Your task to perform on an android device: Look up the best rated coffee maker on Lowe's. Image 0: 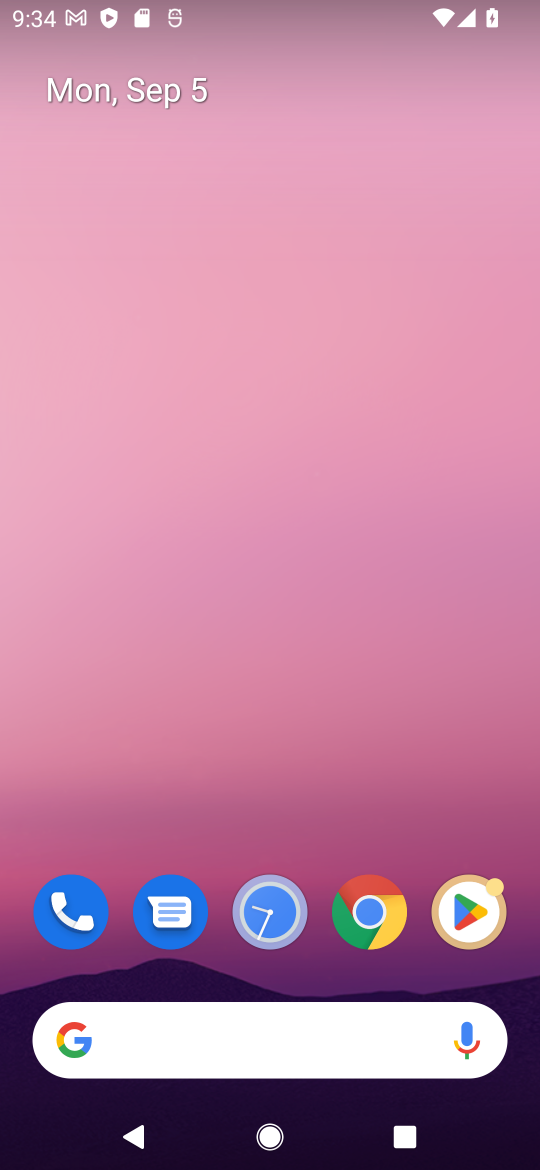
Step 0: click (361, 919)
Your task to perform on an android device: Look up the best rated coffee maker on Lowe's. Image 1: 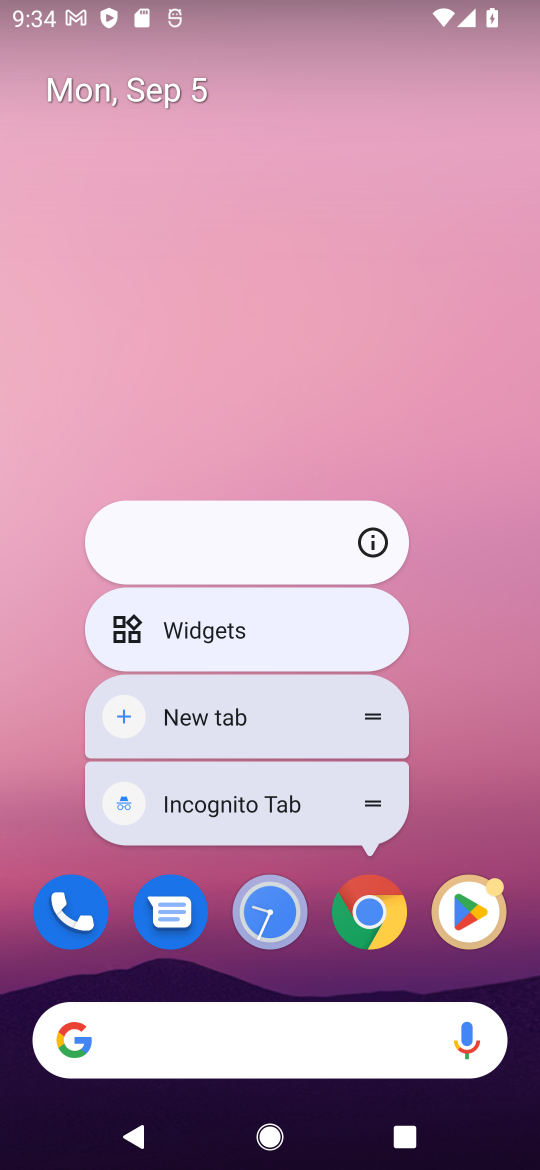
Step 1: click (372, 924)
Your task to perform on an android device: Look up the best rated coffee maker on Lowe's. Image 2: 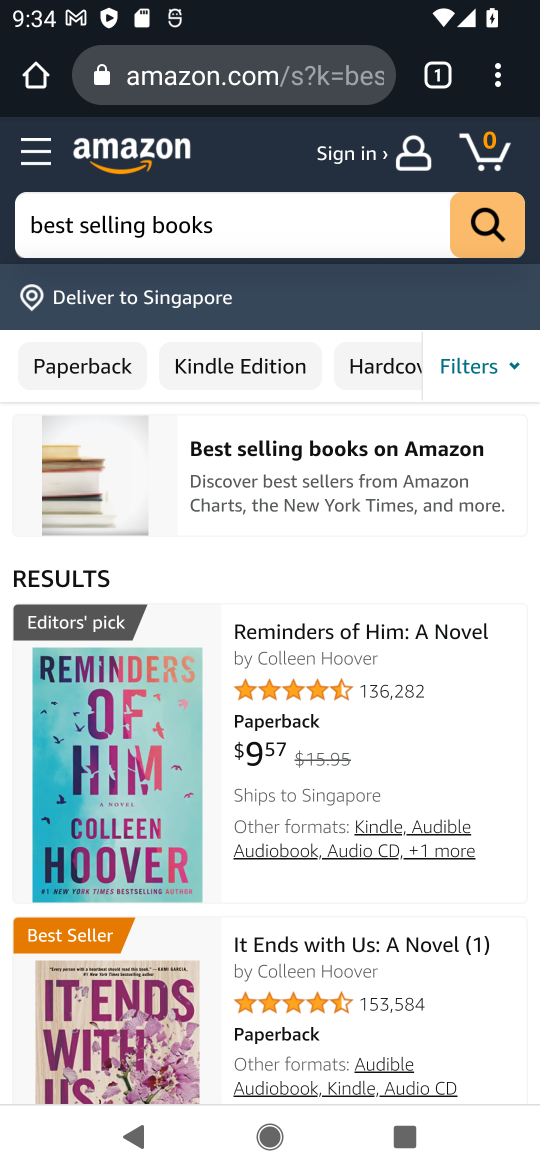
Step 2: click (244, 76)
Your task to perform on an android device: Look up the best rated coffee maker on Lowe's. Image 3: 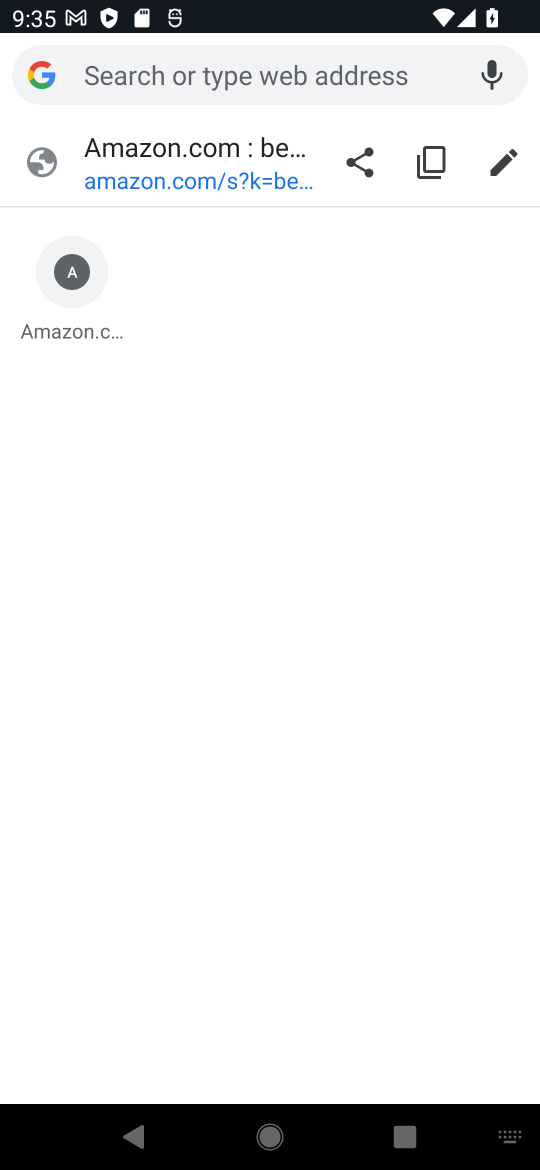
Step 3: click (179, 81)
Your task to perform on an android device: Look up the best rated coffee maker on Lowe's. Image 4: 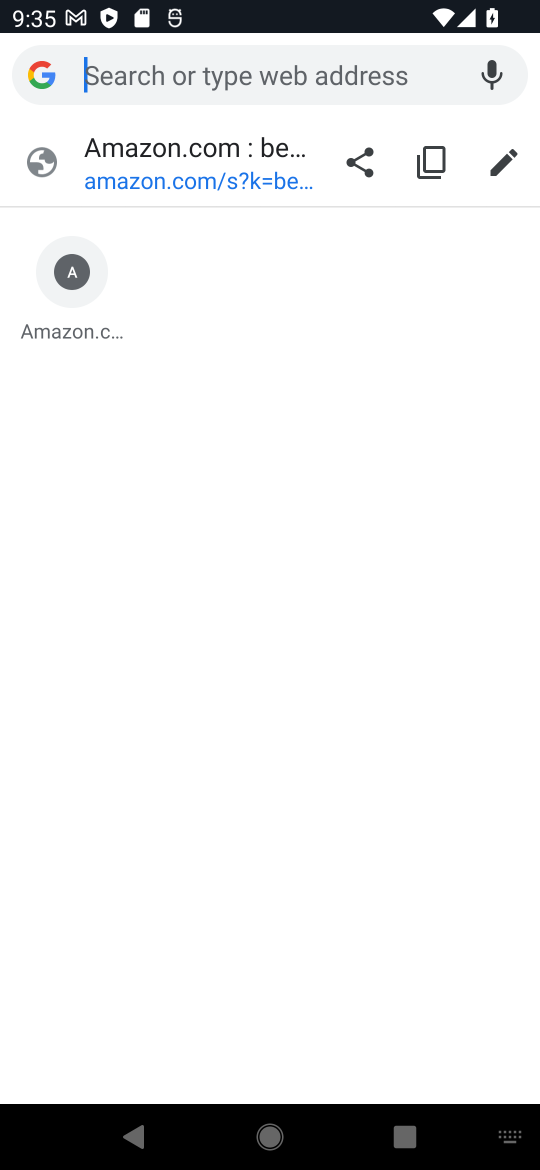
Step 4: type "Lowe's."
Your task to perform on an android device: Look up the best rated coffee maker on Lowe's. Image 5: 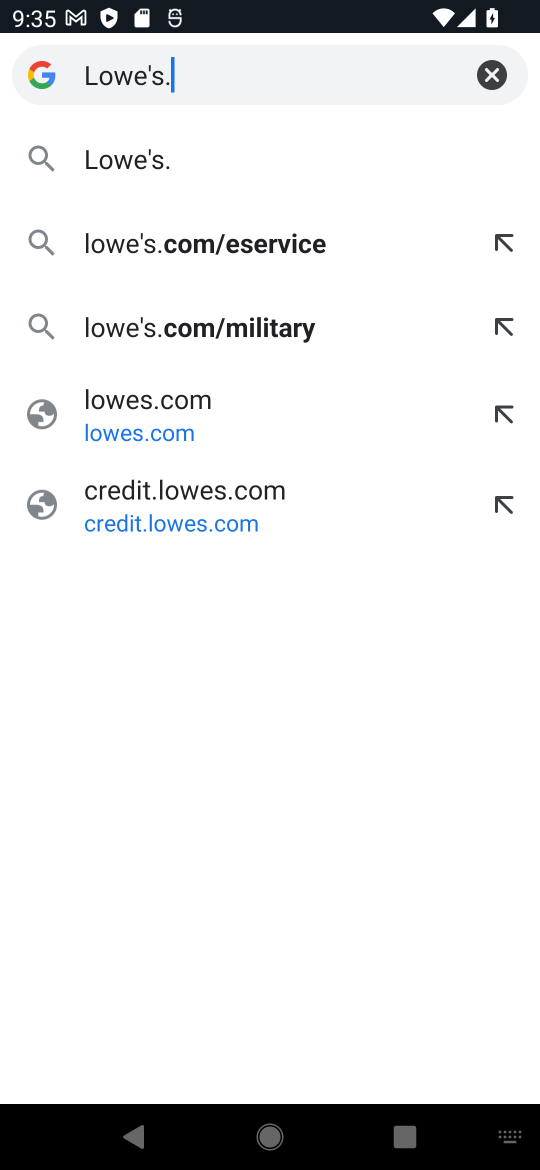
Step 5: click (111, 158)
Your task to perform on an android device: Look up the best rated coffee maker on Lowe's. Image 6: 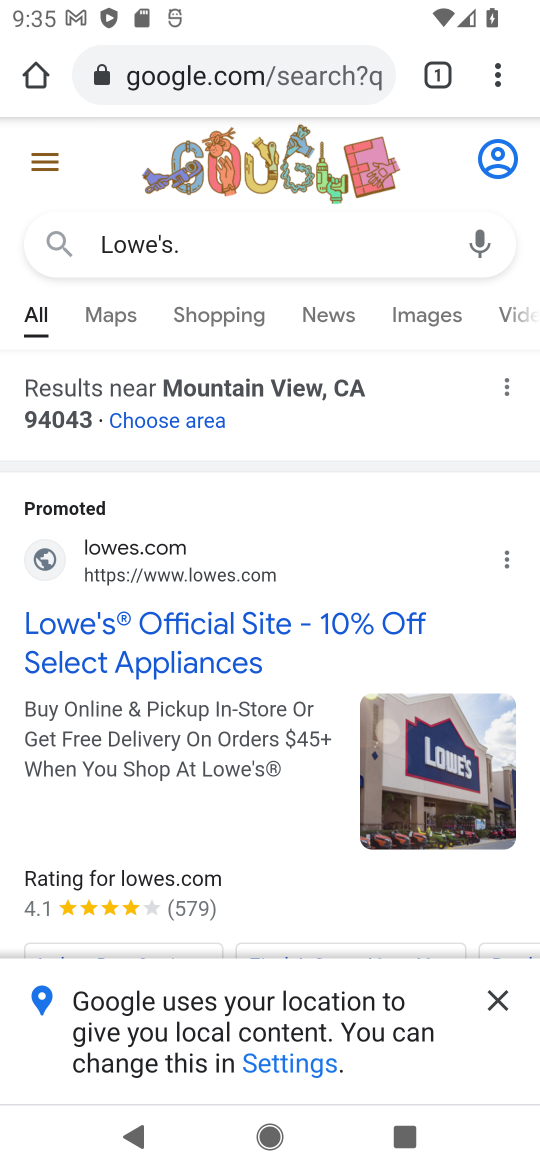
Step 6: drag from (134, 794) to (189, 461)
Your task to perform on an android device: Look up the best rated coffee maker on Lowe's. Image 7: 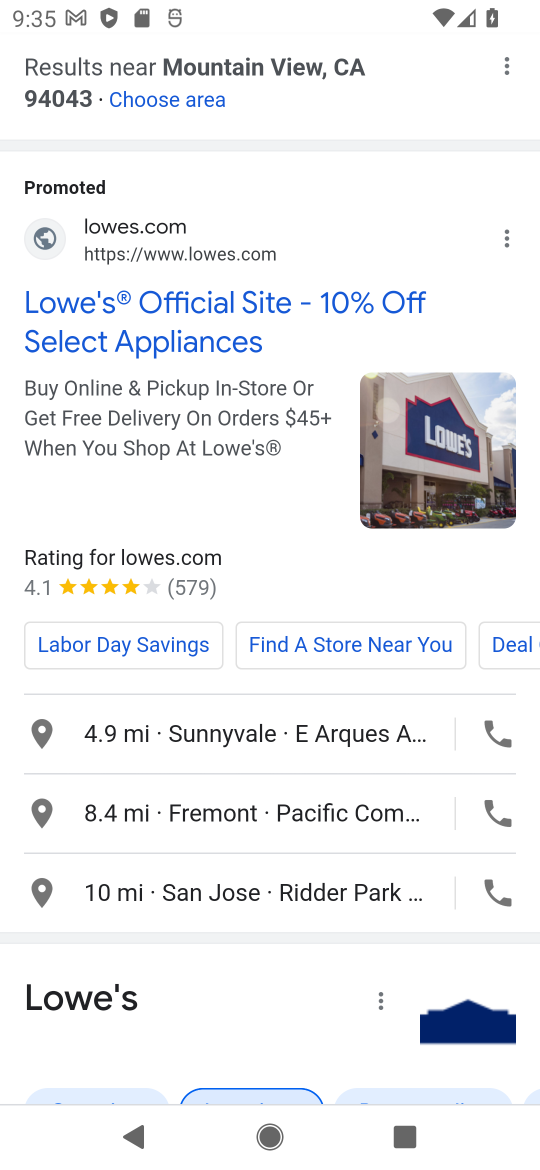
Step 7: click (61, 1010)
Your task to perform on an android device: Look up the best rated coffee maker on Lowe's. Image 8: 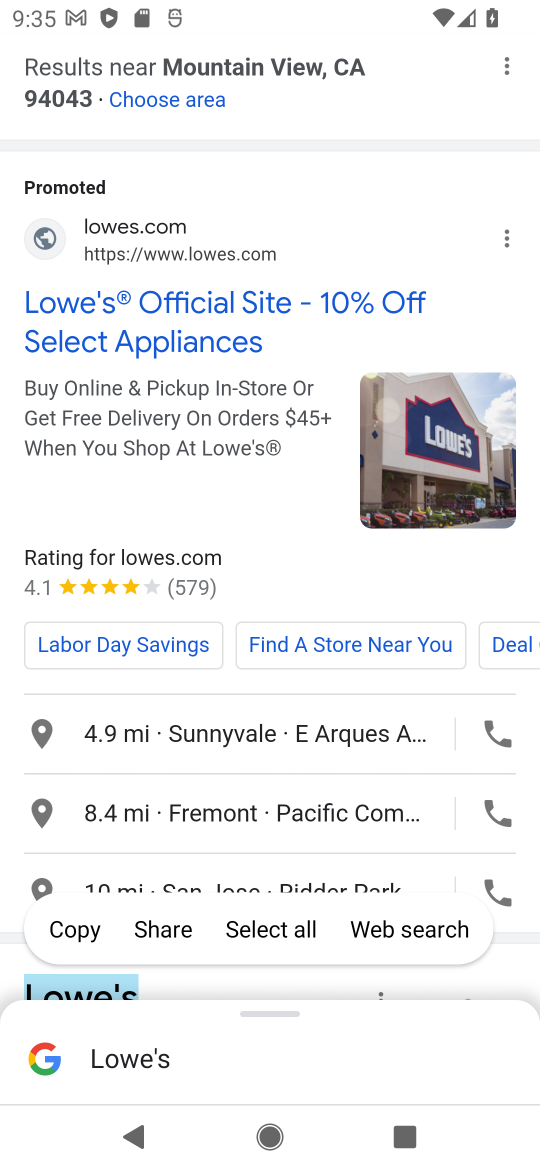
Step 8: click (114, 989)
Your task to perform on an android device: Look up the best rated coffee maker on Lowe's. Image 9: 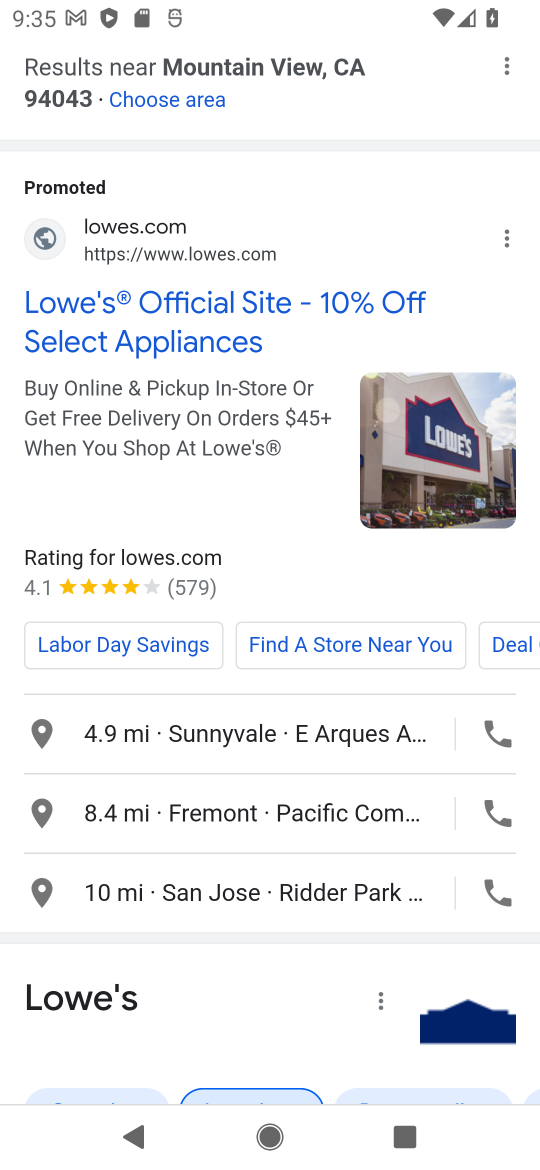
Step 9: click (97, 1001)
Your task to perform on an android device: Look up the best rated coffee maker on Lowe's. Image 10: 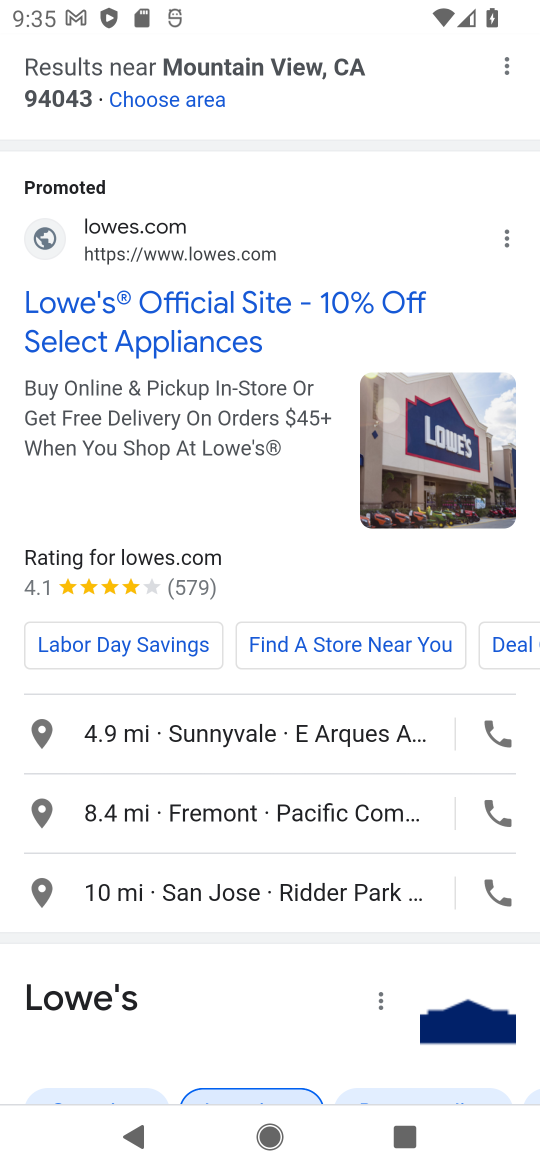
Step 10: click (89, 1004)
Your task to perform on an android device: Look up the best rated coffee maker on Lowe's. Image 11: 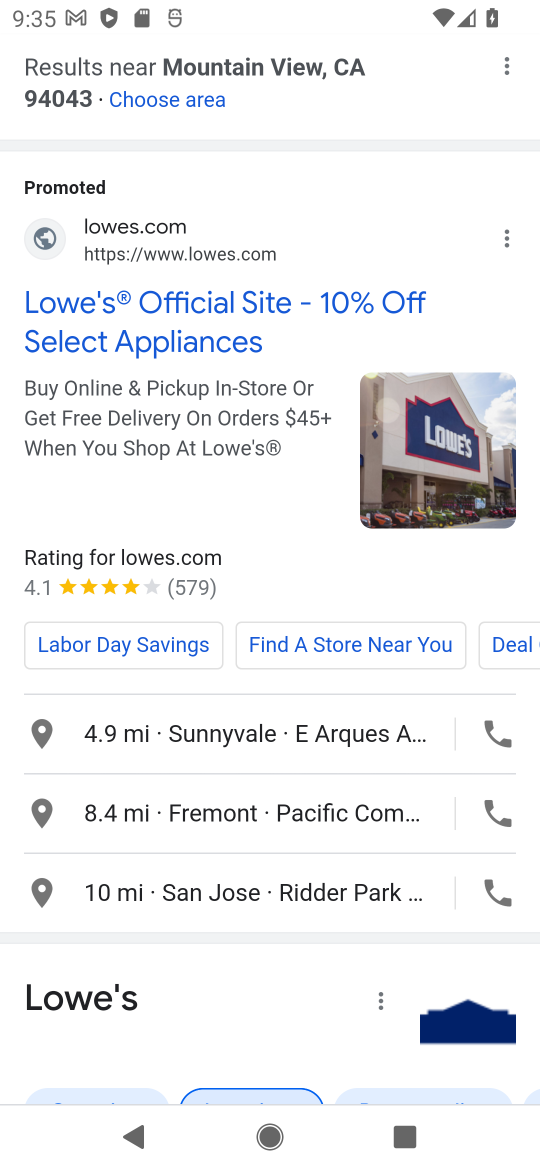
Step 11: click (89, 1004)
Your task to perform on an android device: Look up the best rated coffee maker on Lowe's. Image 12: 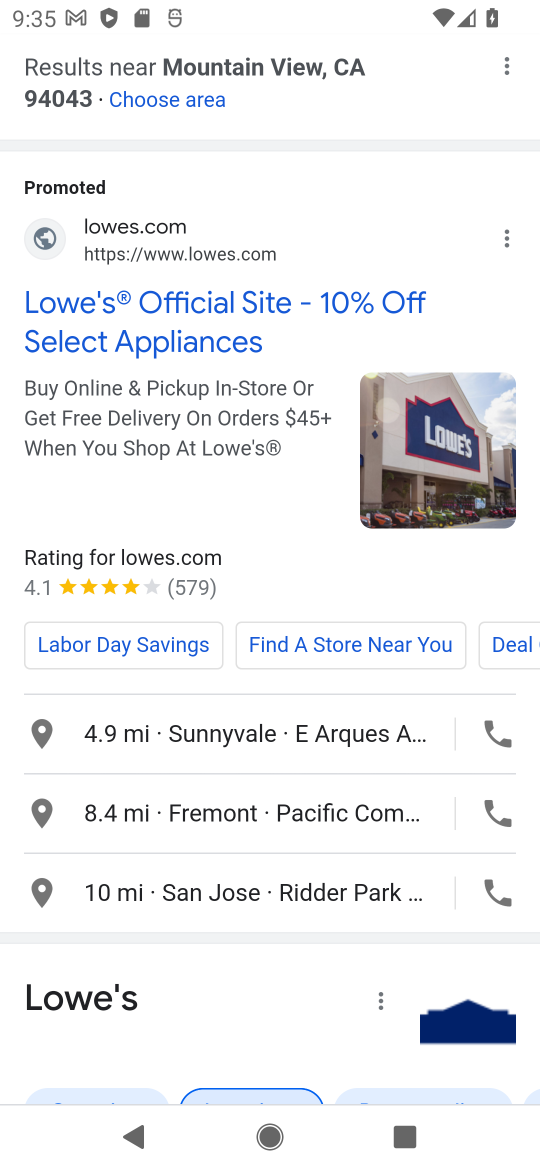
Step 12: click (89, 1004)
Your task to perform on an android device: Look up the best rated coffee maker on Lowe's. Image 13: 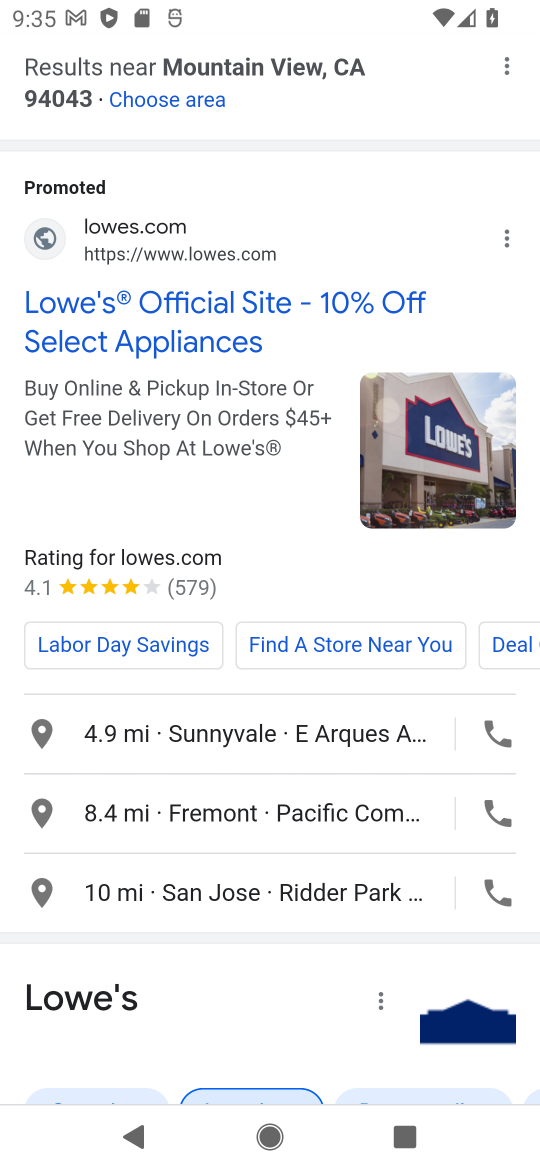
Step 13: drag from (305, 773) to (344, 409)
Your task to perform on an android device: Look up the best rated coffee maker on Lowe's. Image 14: 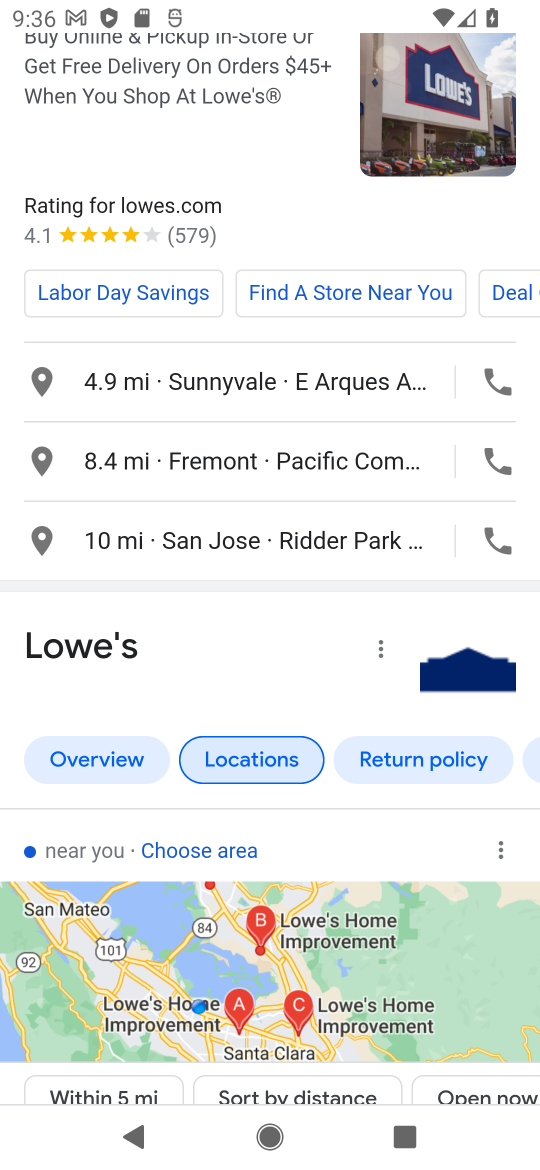
Step 14: click (82, 648)
Your task to perform on an android device: Look up the best rated coffee maker on Lowe's. Image 15: 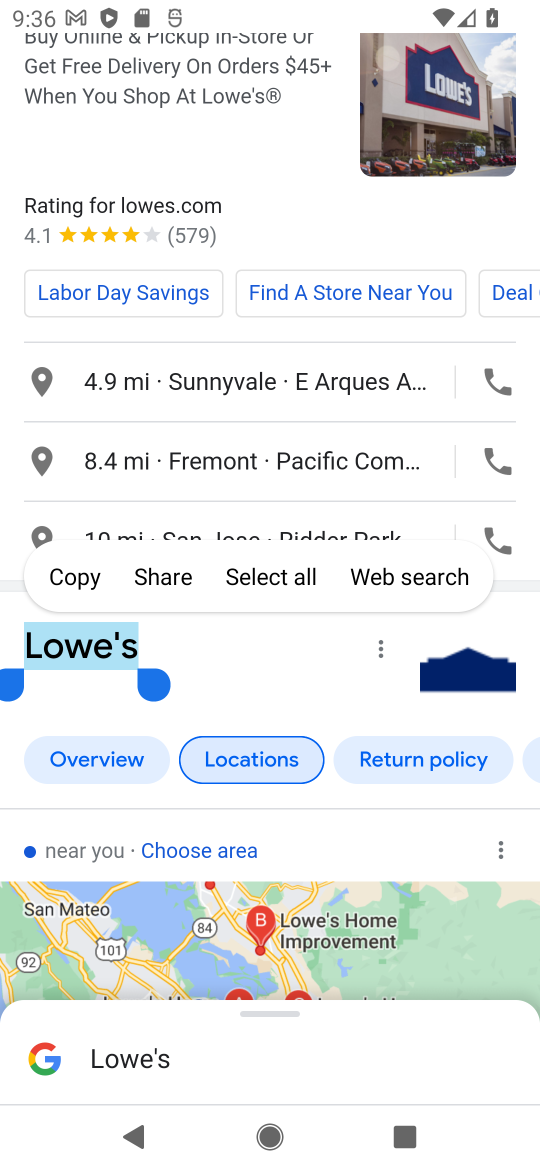
Step 15: drag from (240, 424) to (234, 241)
Your task to perform on an android device: Look up the best rated coffee maker on Lowe's. Image 16: 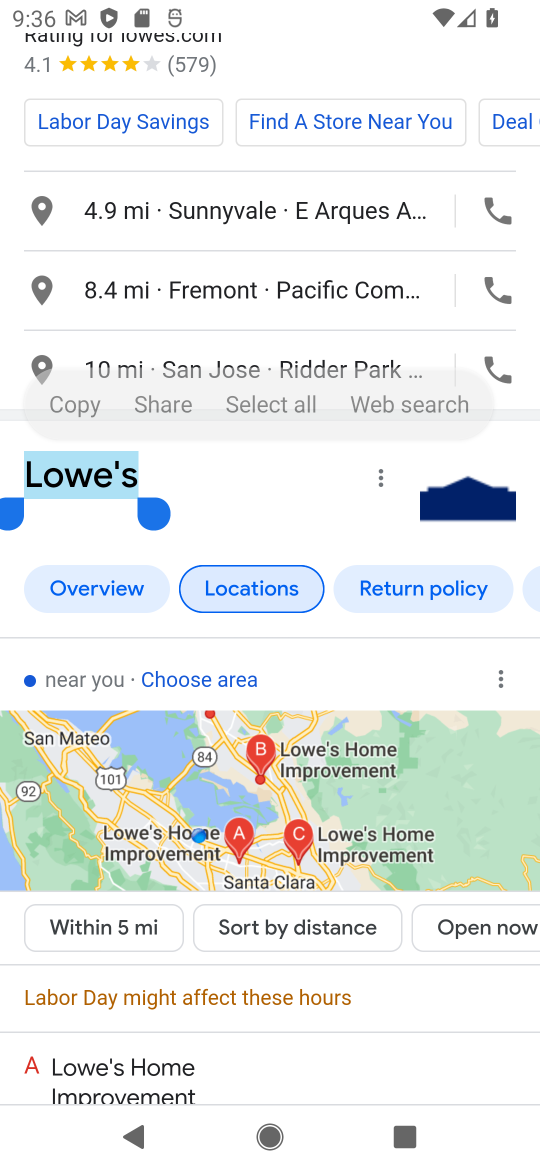
Step 16: drag from (362, 395) to (311, 149)
Your task to perform on an android device: Look up the best rated coffee maker on Lowe's. Image 17: 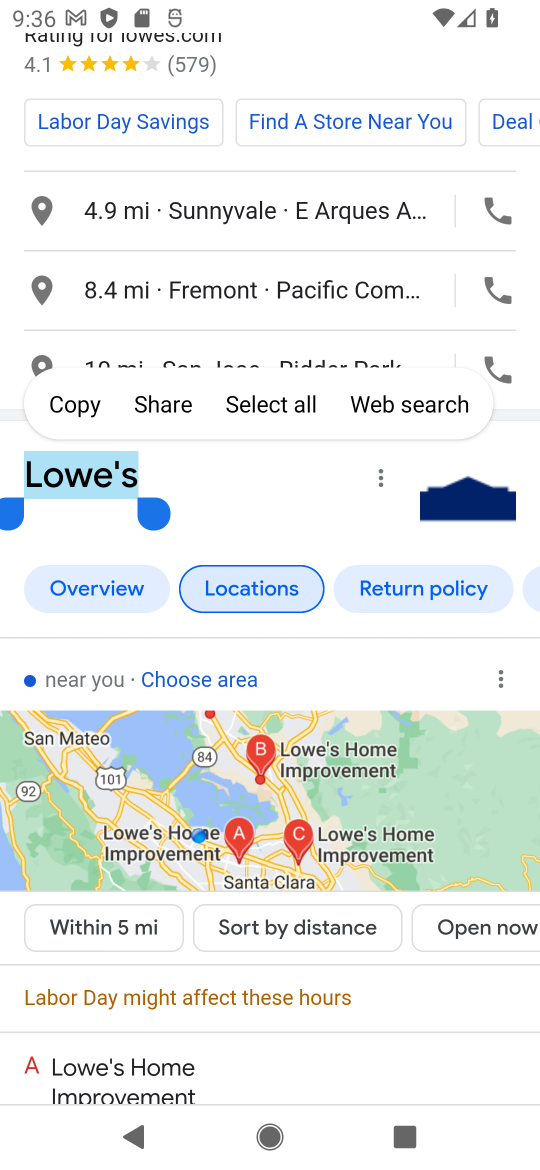
Step 17: drag from (271, 771) to (290, 952)
Your task to perform on an android device: Look up the best rated coffee maker on Lowe's. Image 18: 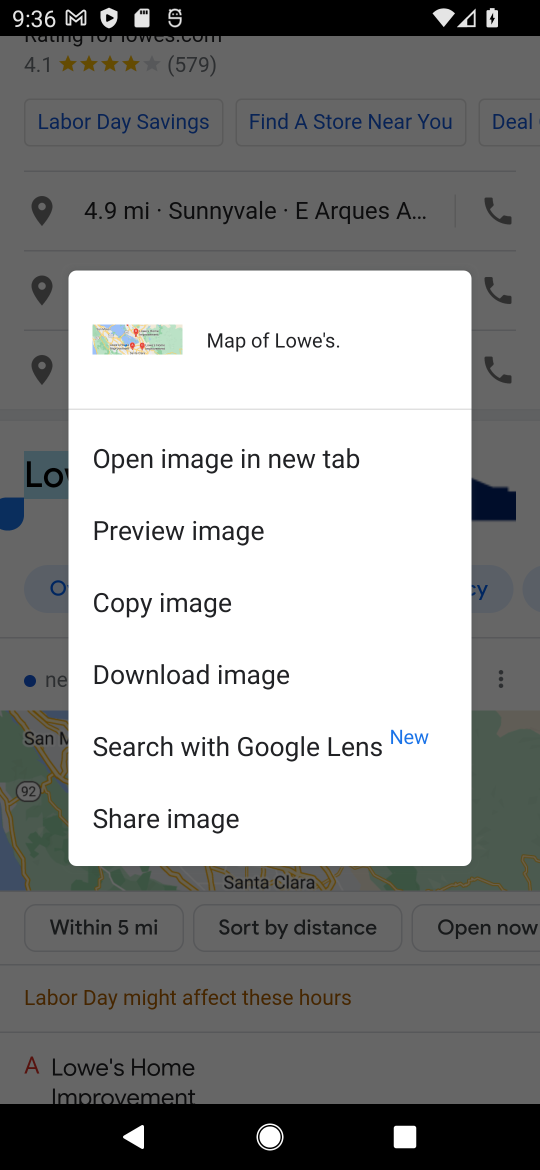
Step 18: drag from (460, 609) to (459, 943)
Your task to perform on an android device: Look up the best rated coffee maker on Lowe's. Image 19: 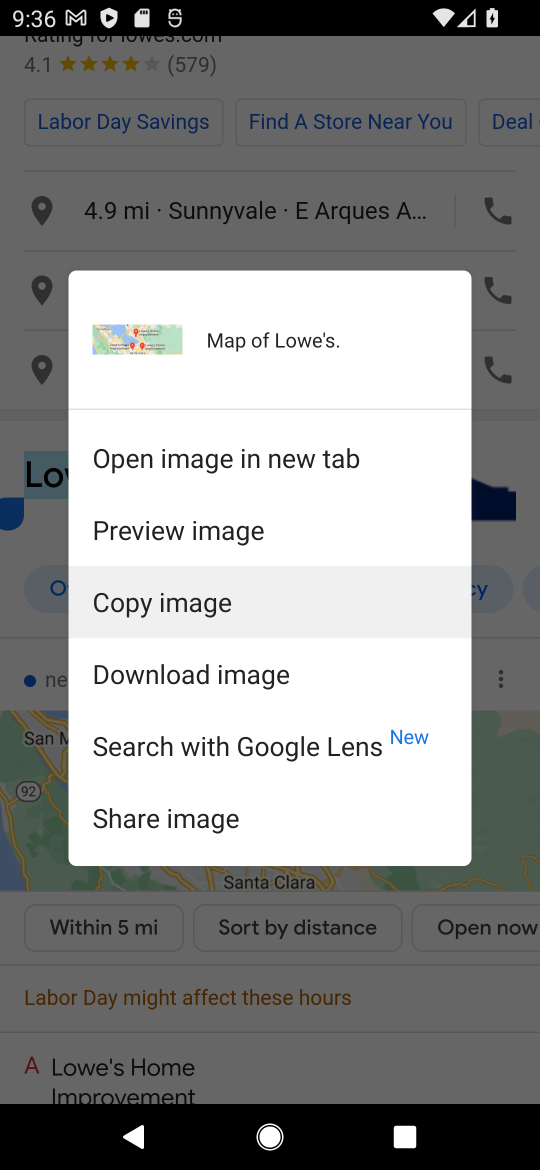
Step 19: click (512, 849)
Your task to perform on an android device: Look up the best rated coffee maker on Lowe's. Image 20: 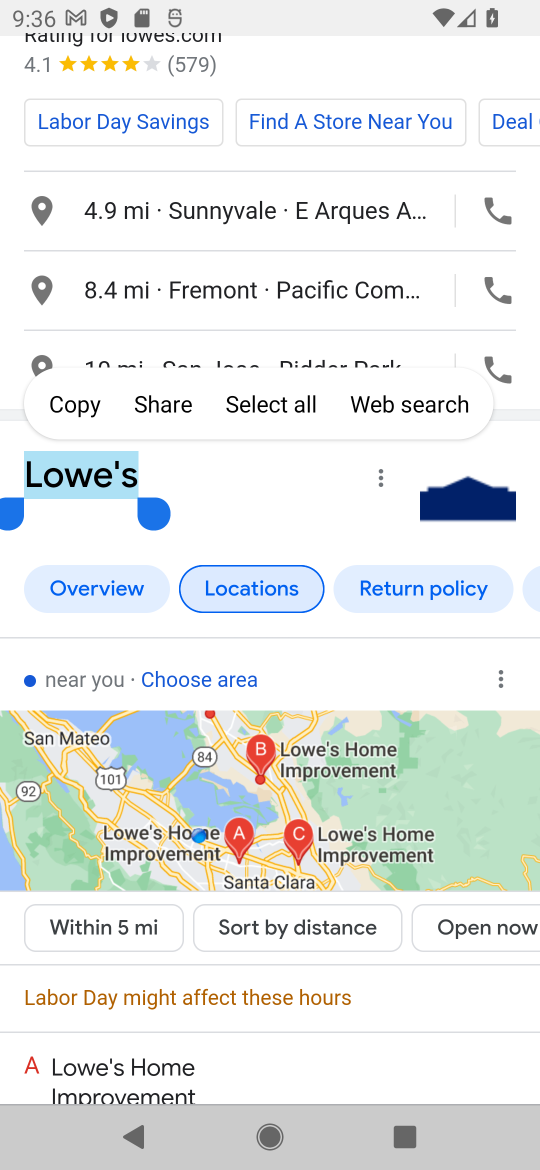
Step 20: drag from (228, 618) to (193, 1047)
Your task to perform on an android device: Look up the best rated coffee maker on Lowe's. Image 21: 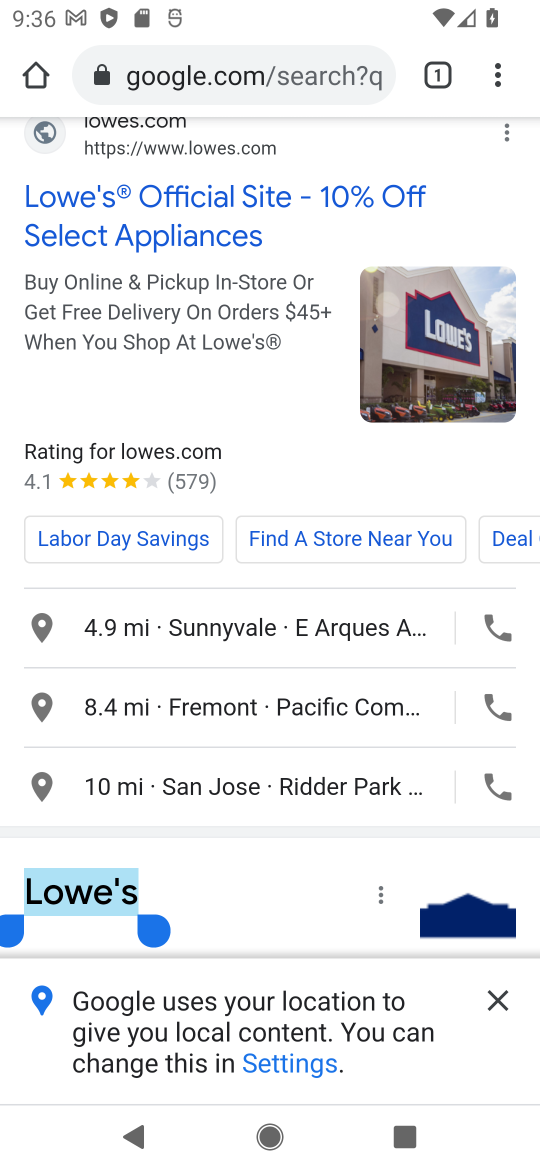
Step 21: drag from (205, 831) to (217, 1054)
Your task to perform on an android device: Look up the best rated coffee maker on Lowe's. Image 22: 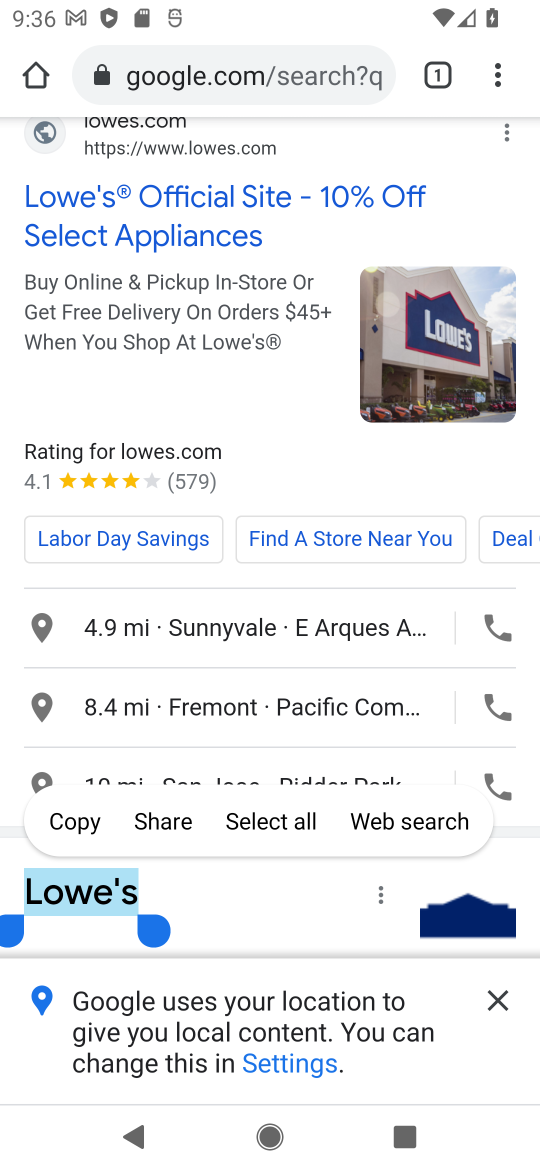
Step 22: click (90, 228)
Your task to perform on an android device: Look up the best rated coffee maker on Lowe's. Image 23: 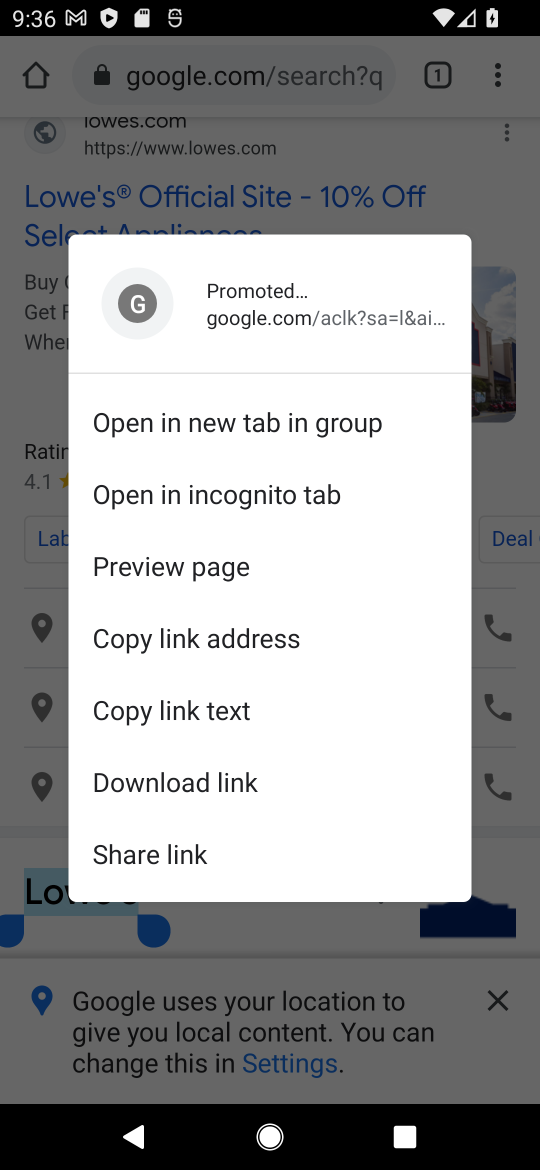
Step 23: click (71, 205)
Your task to perform on an android device: Look up the best rated coffee maker on Lowe's. Image 24: 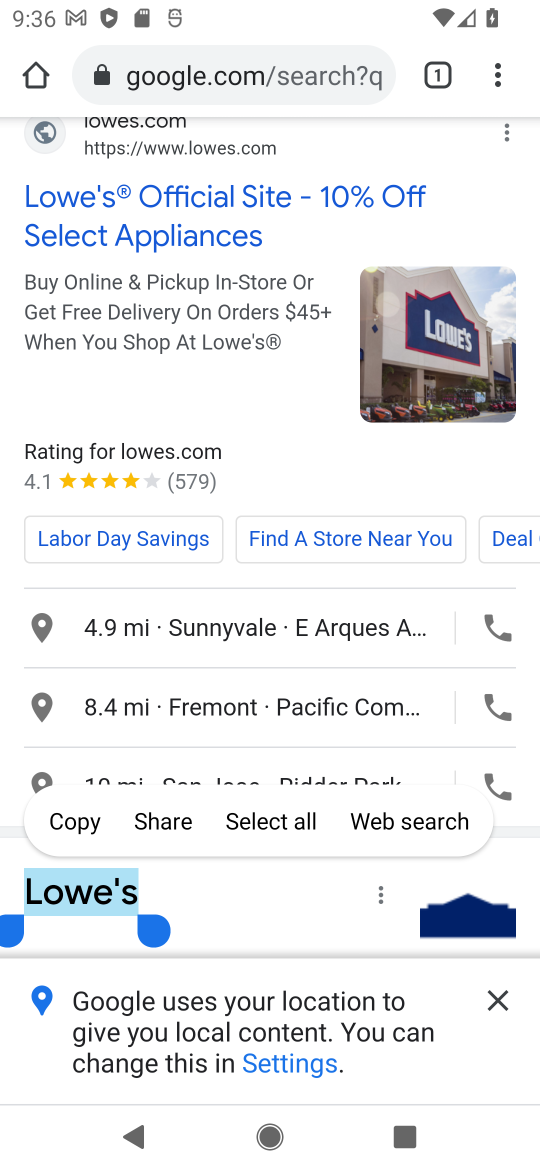
Step 24: click (131, 229)
Your task to perform on an android device: Look up the best rated coffee maker on Lowe's. Image 25: 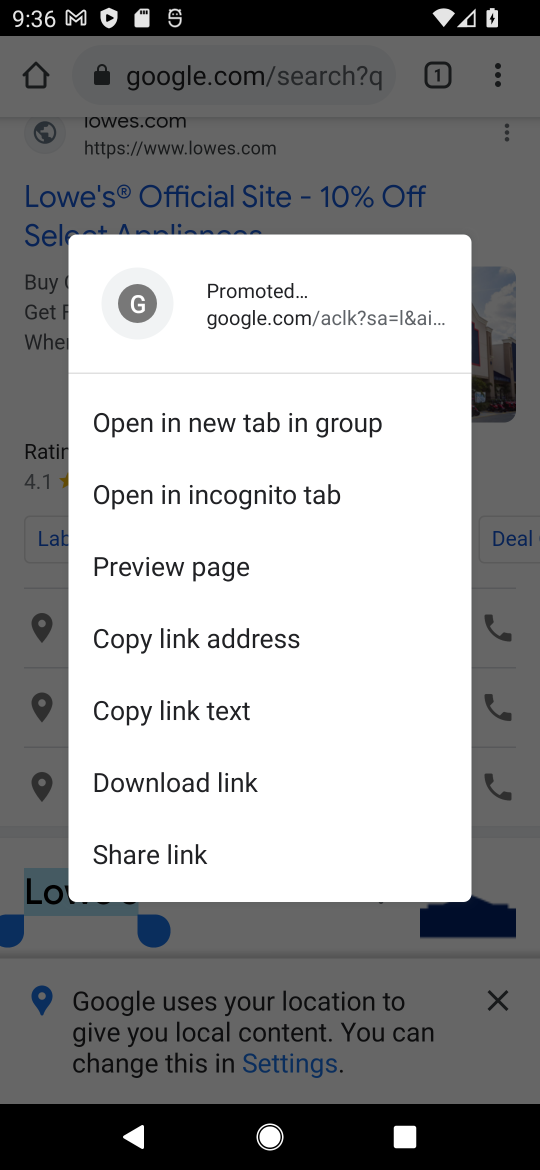
Step 25: click (68, 215)
Your task to perform on an android device: Look up the best rated coffee maker on Lowe's. Image 26: 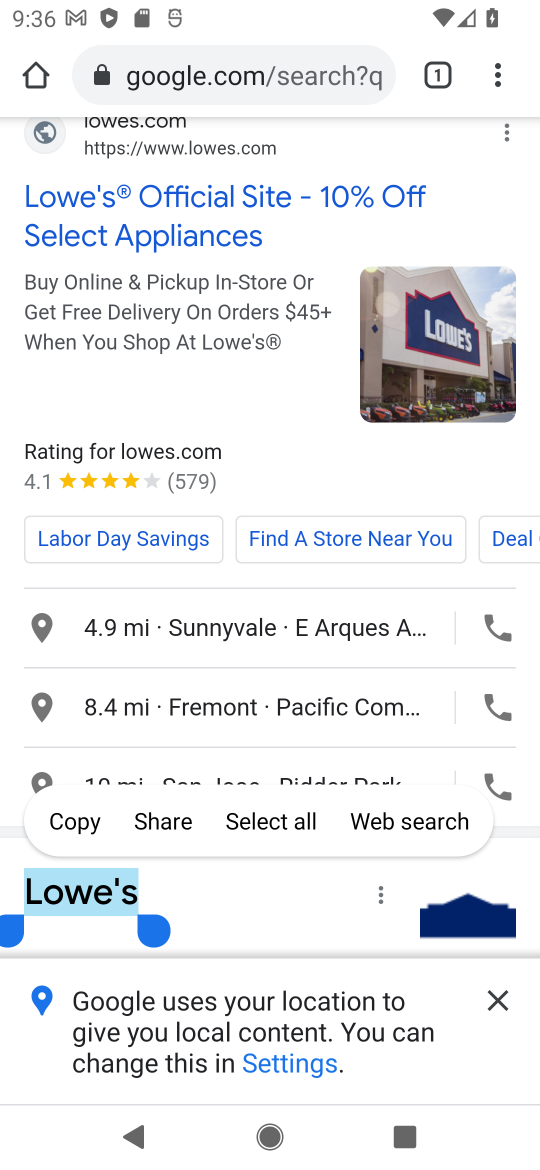
Step 26: click (68, 215)
Your task to perform on an android device: Look up the best rated coffee maker on Lowe's. Image 27: 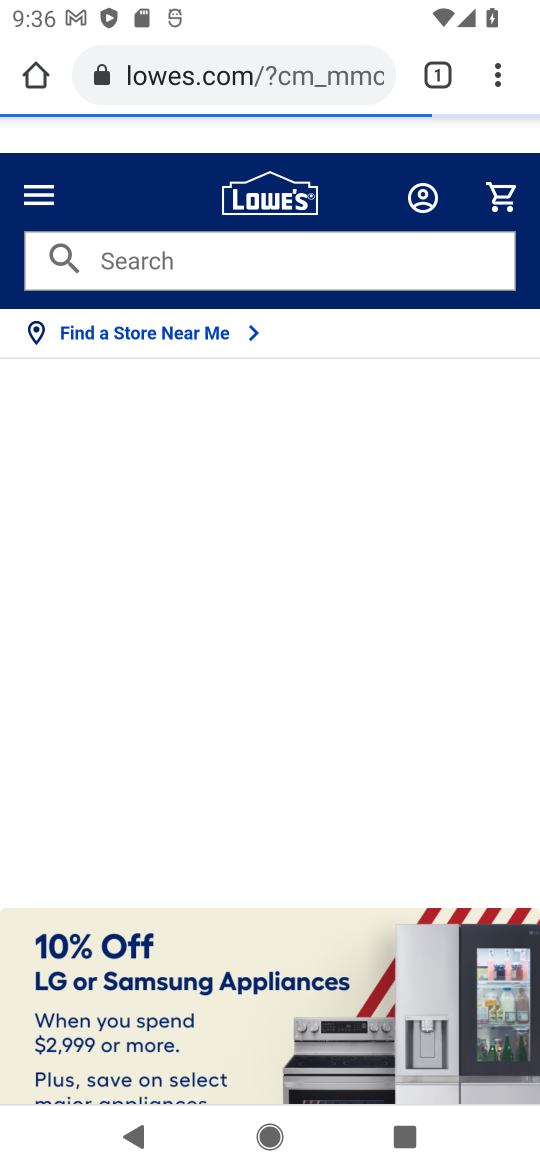
Step 27: click (144, 258)
Your task to perform on an android device: Look up the best rated coffee maker on Lowe's. Image 28: 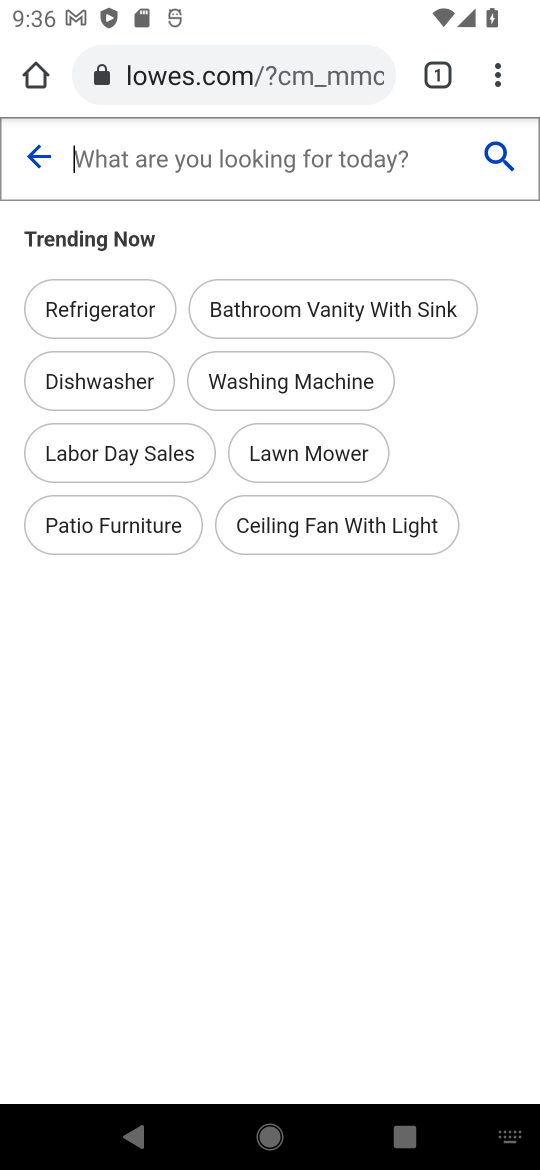
Step 28: click (211, 159)
Your task to perform on an android device: Look up the best rated coffee maker on Lowe's. Image 29: 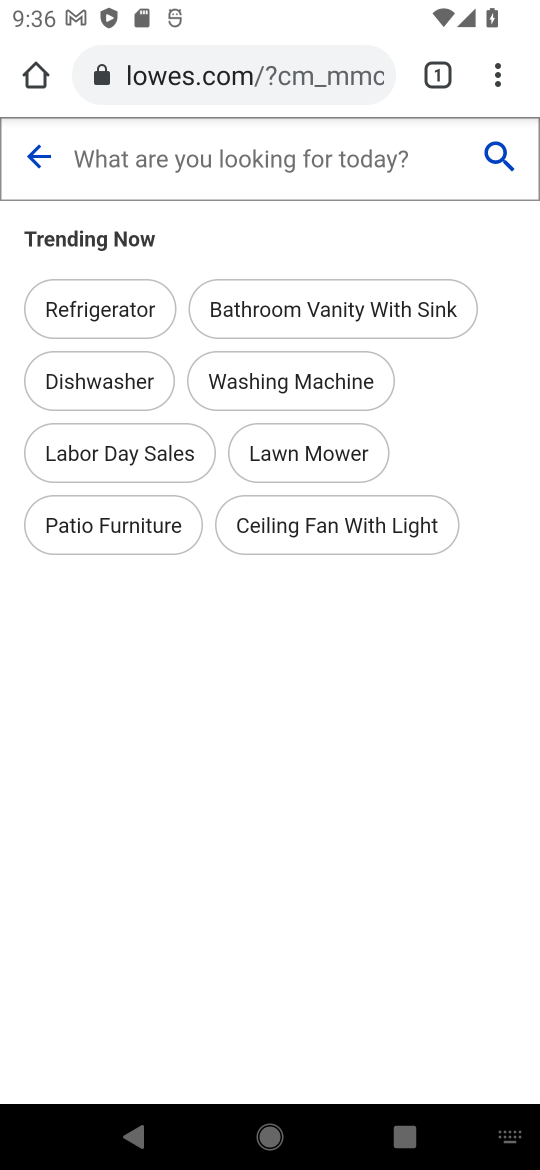
Step 29: type "best rated coffee maker"
Your task to perform on an android device: Look up the best rated coffee maker on Lowe's. Image 30: 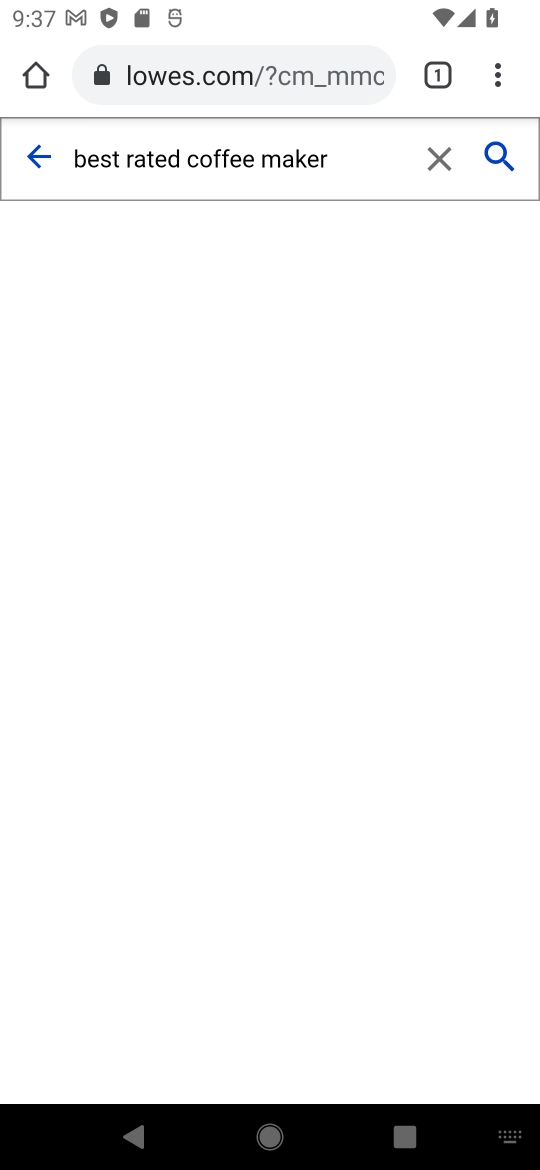
Step 30: click (498, 164)
Your task to perform on an android device: Look up the best rated coffee maker on Lowe's. Image 31: 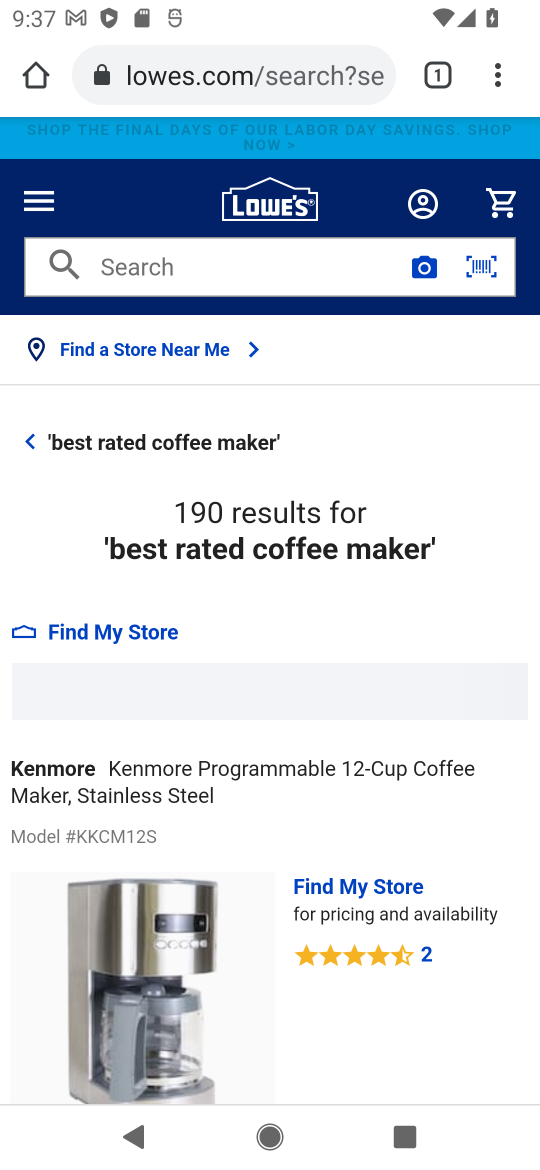
Step 31: task complete